Your task to perform on an android device: turn vacation reply on in the gmail app Image 0: 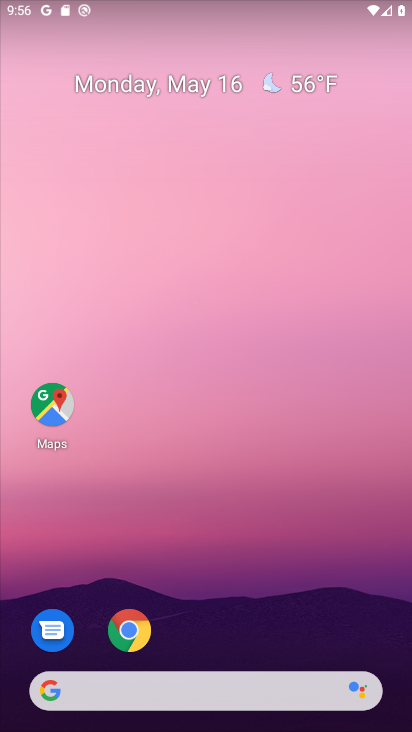
Step 0: drag from (272, 618) to (346, 36)
Your task to perform on an android device: turn vacation reply on in the gmail app Image 1: 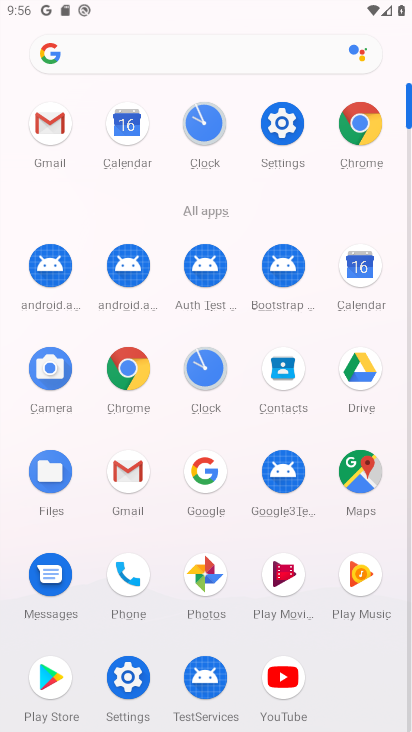
Step 1: click (43, 124)
Your task to perform on an android device: turn vacation reply on in the gmail app Image 2: 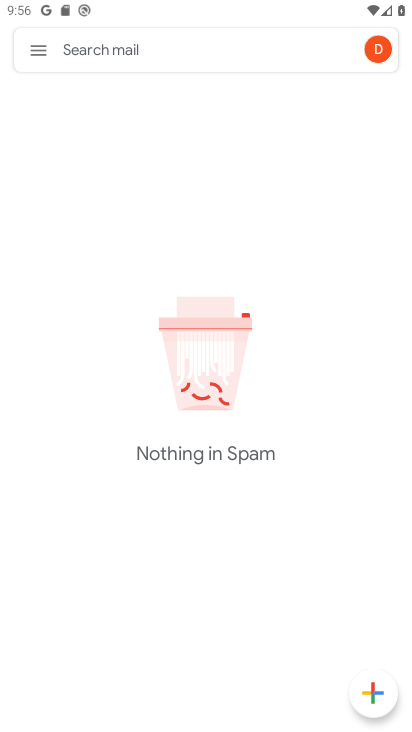
Step 2: click (40, 53)
Your task to perform on an android device: turn vacation reply on in the gmail app Image 3: 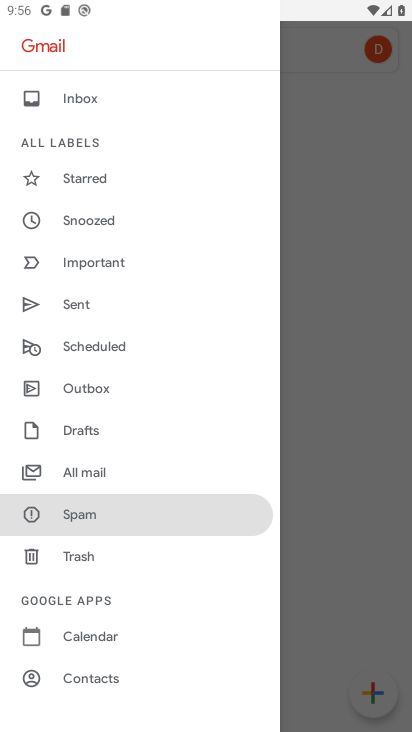
Step 3: drag from (162, 641) to (162, 558)
Your task to perform on an android device: turn vacation reply on in the gmail app Image 4: 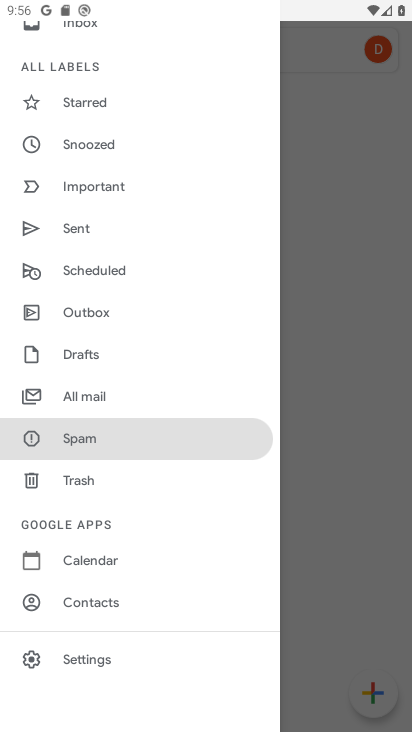
Step 4: click (91, 662)
Your task to perform on an android device: turn vacation reply on in the gmail app Image 5: 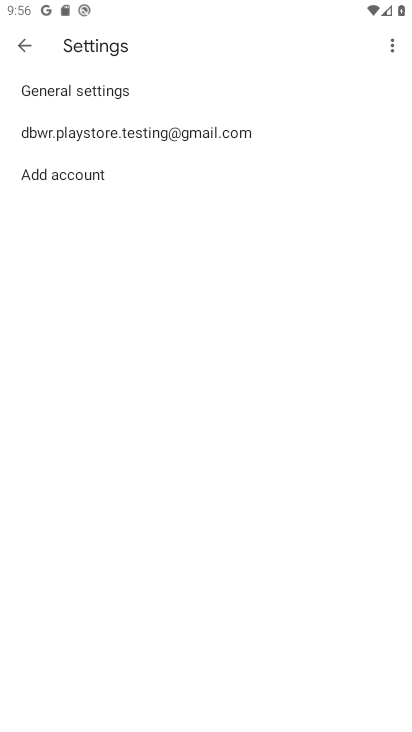
Step 5: click (212, 124)
Your task to perform on an android device: turn vacation reply on in the gmail app Image 6: 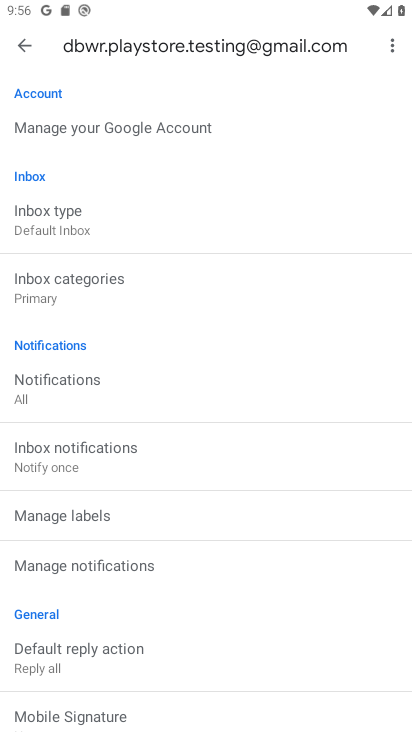
Step 6: drag from (244, 578) to (269, 23)
Your task to perform on an android device: turn vacation reply on in the gmail app Image 7: 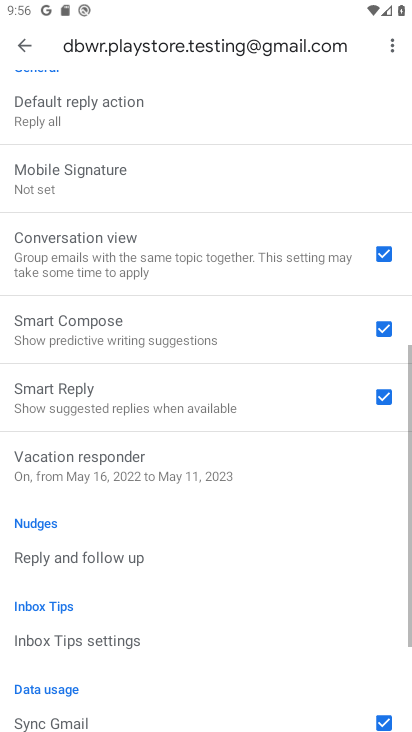
Step 7: click (188, 439)
Your task to perform on an android device: turn vacation reply on in the gmail app Image 8: 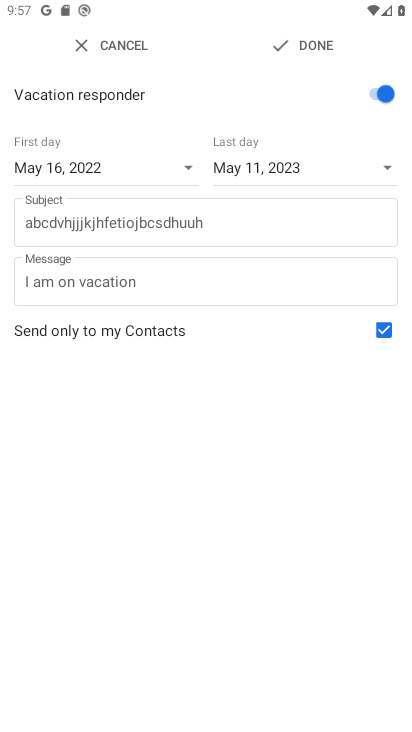
Step 8: task complete